Your task to perform on an android device: Open calendar and show me the third week of next month Image 0: 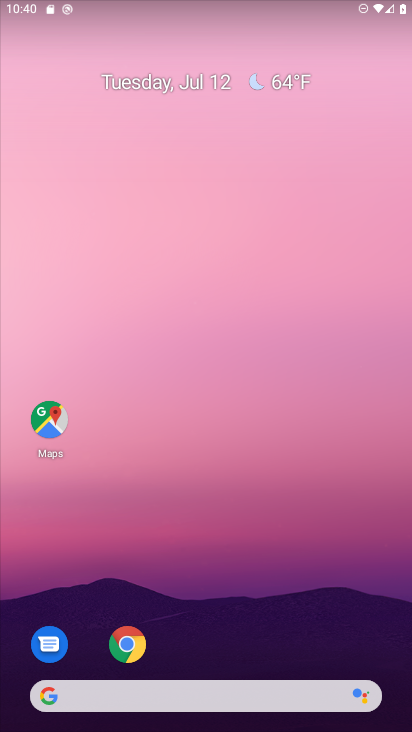
Step 0: drag from (270, 630) to (364, 199)
Your task to perform on an android device: Open calendar and show me the third week of next month Image 1: 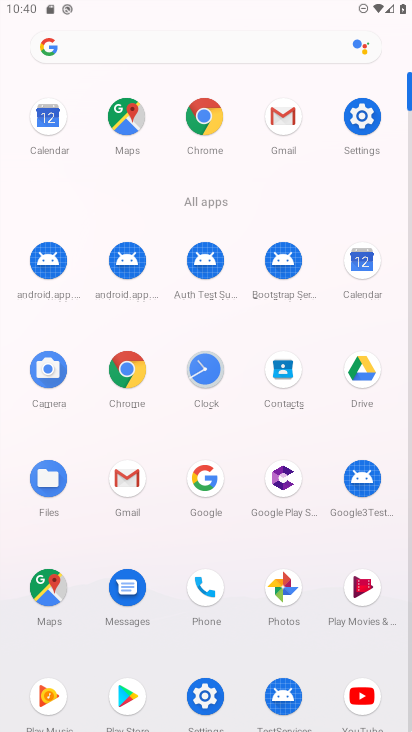
Step 1: click (49, 119)
Your task to perform on an android device: Open calendar and show me the third week of next month Image 2: 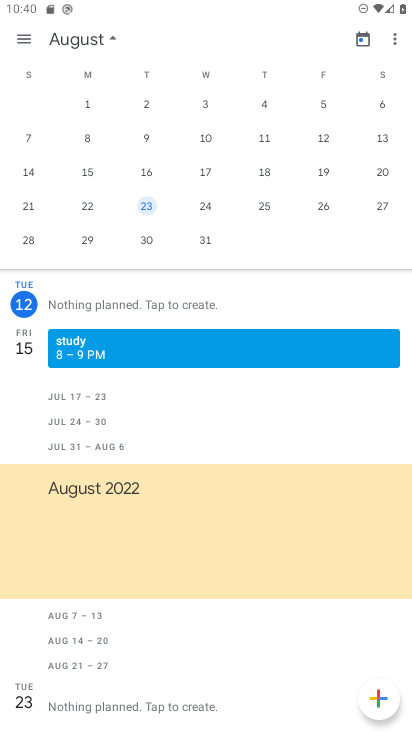
Step 2: task complete